Your task to perform on an android device: show emergency info Image 0: 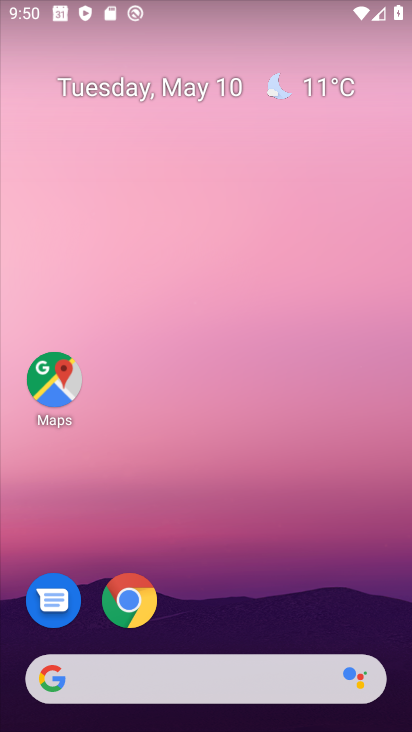
Step 0: drag from (253, 592) to (187, 102)
Your task to perform on an android device: show emergency info Image 1: 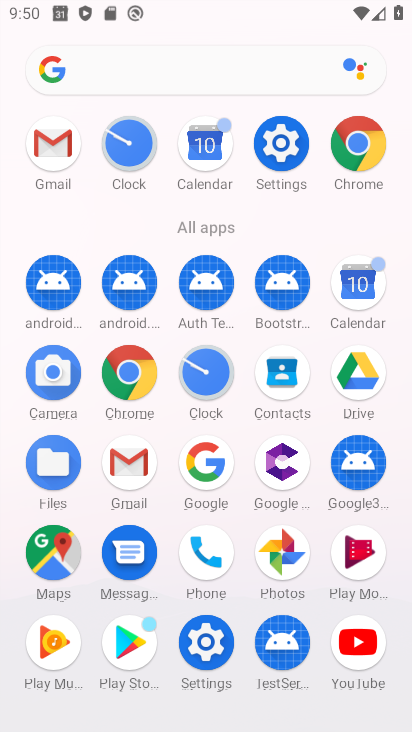
Step 1: click (304, 149)
Your task to perform on an android device: show emergency info Image 2: 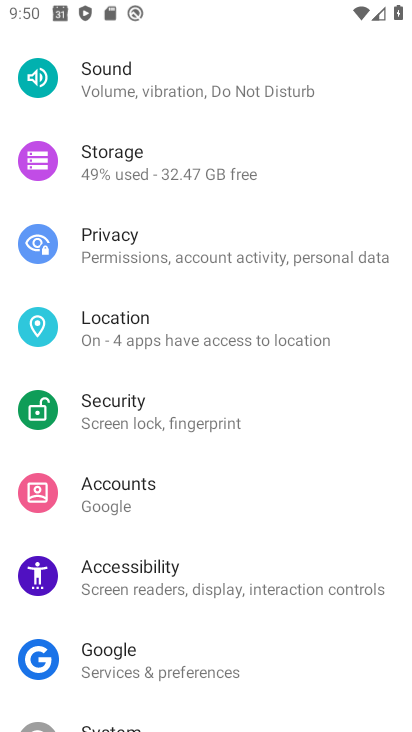
Step 2: drag from (319, 579) to (250, 189)
Your task to perform on an android device: show emergency info Image 3: 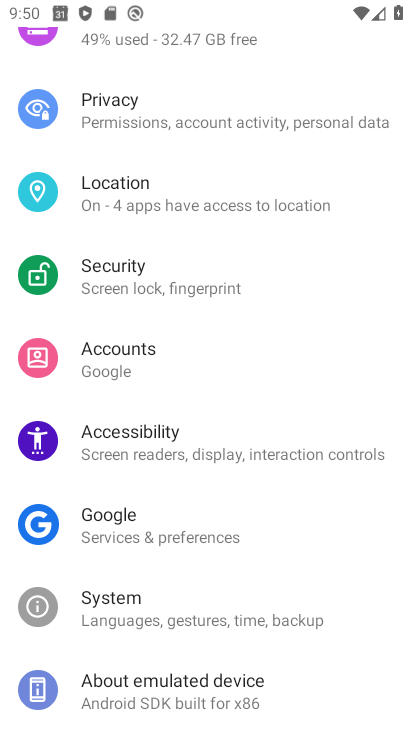
Step 3: drag from (213, 595) to (271, 188)
Your task to perform on an android device: show emergency info Image 4: 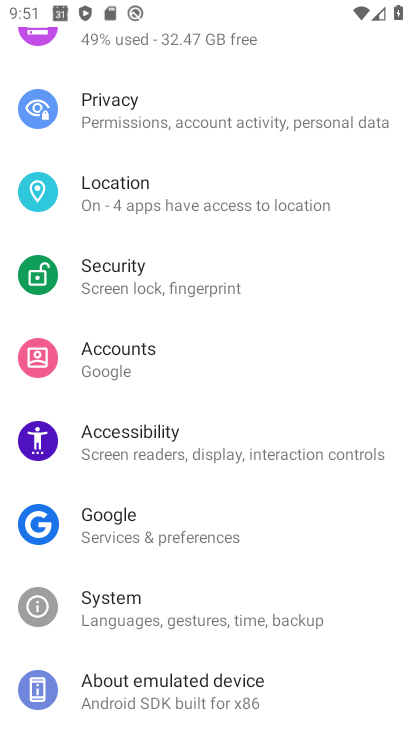
Step 4: click (179, 692)
Your task to perform on an android device: show emergency info Image 5: 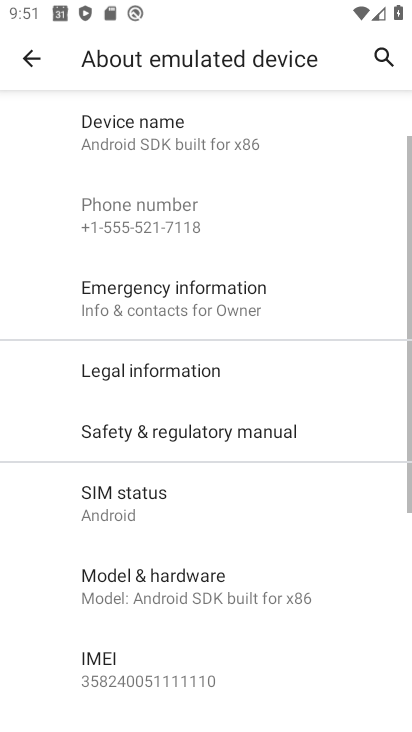
Step 5: click (131, 276)
Your task to perform on an android device: show emergency info Image 6: 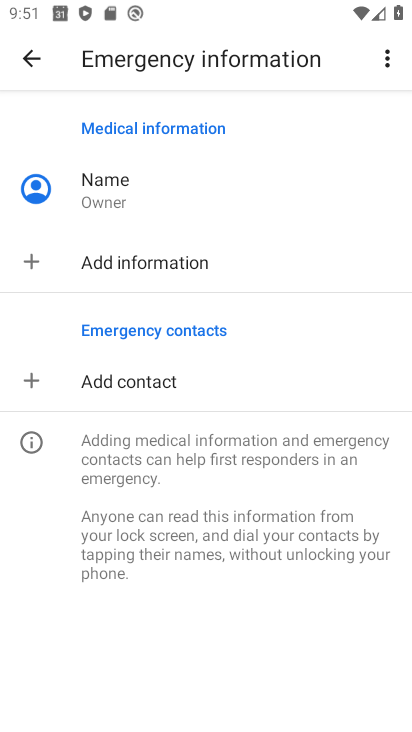
Step 6: task complete